Your task to perform on an android device: delete the emails in spam in the gmail app Image 0: 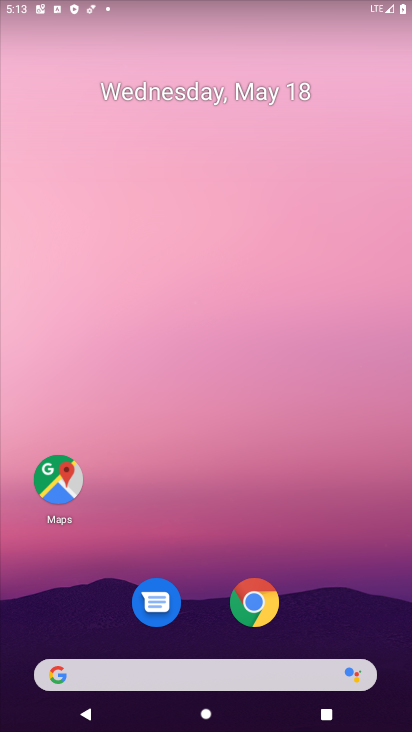
Step 0: drag from (333, 673) to (308, 25)
Your task to perform on an android device: delete the emails in spam in the gmail app Image 1: 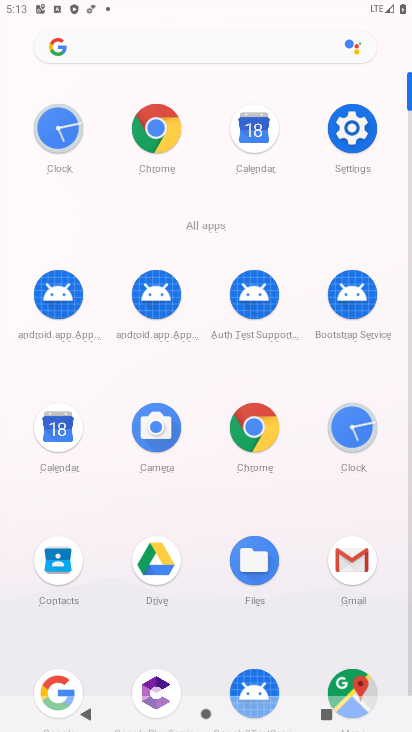
Step 1: click (342, 568)
Your task to perform on an android device: delete the emails in spam in the gmail app Image 2: 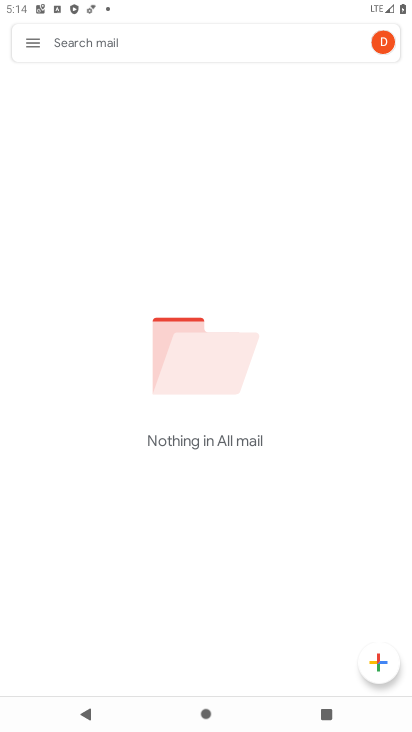
Step 2: click (34, 46)
Your task to perform on an android device: delete the emails in spam in the gmail app Image 3: 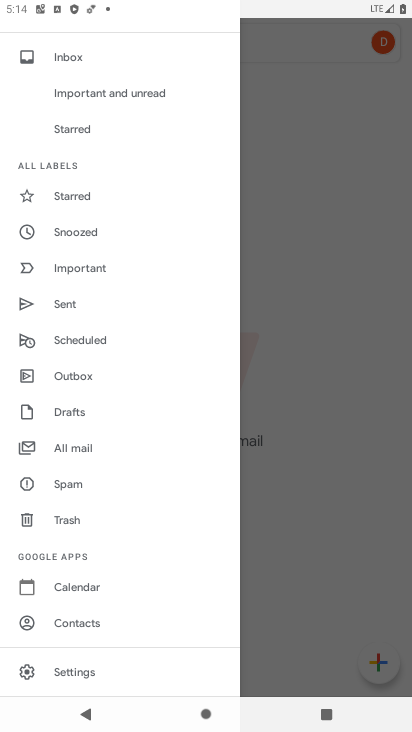
Step 3: click (76, 488)
Your task to perform on an android device: delete the emails in spam in the gmail app Image 4: 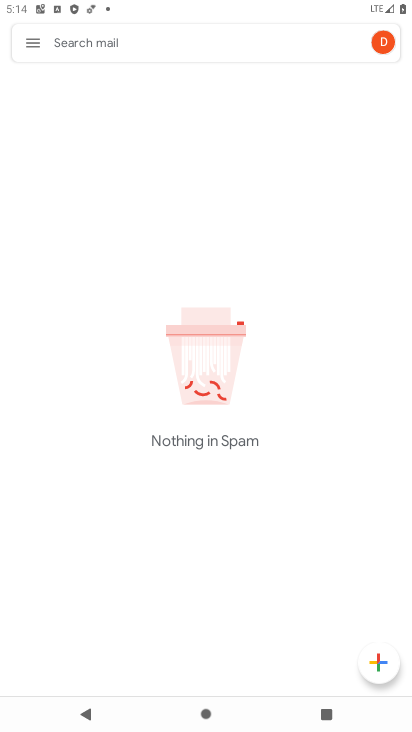
Step 4: task complete